Your task to perform on an android device: Go to eBay Image 0: 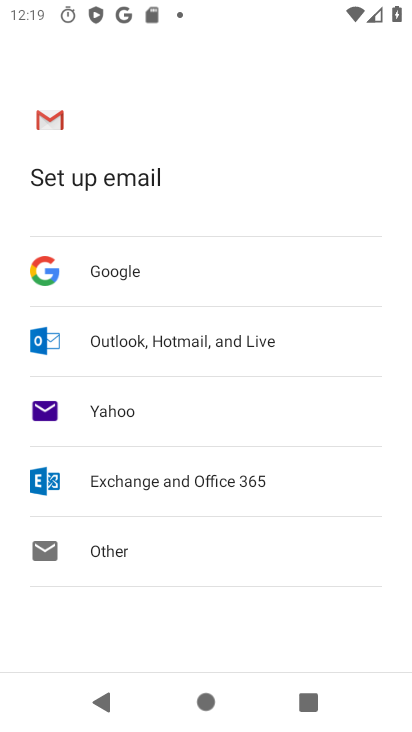
Step 0: drag from (302, 720) to (291, 129)
Your task to perform on an android device: Go to eBay Image 1: 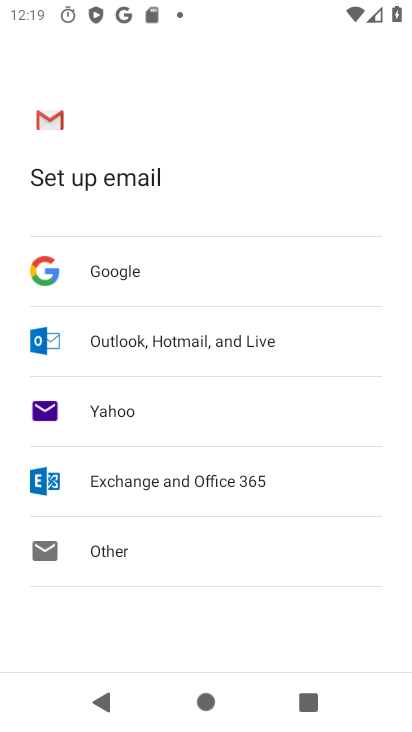
Step 1: press back button
Your task to perform on an android device: Go to eBay Image 2: 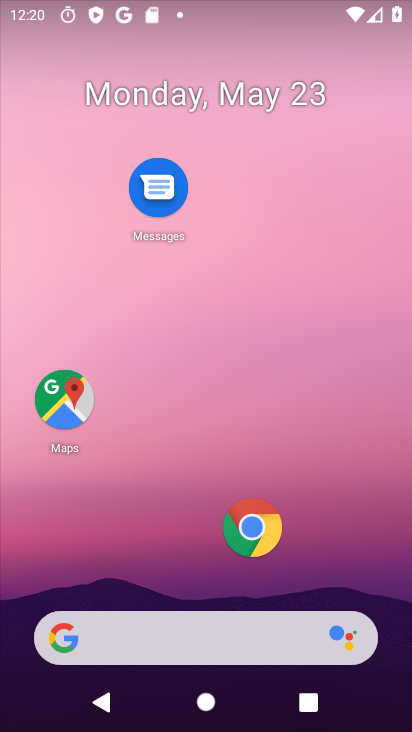
Step 2: drag from (243, 645) to (247, 259)
Your task to perform on an android device: Go to eBay Image 3: 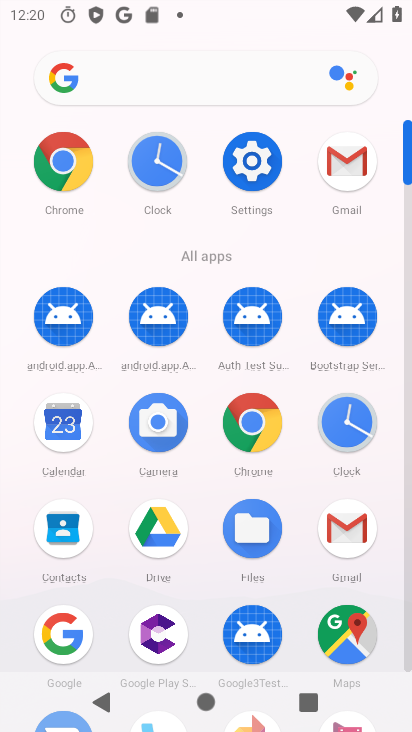
Step 3: click (247, 423)
Your task to perform on an android device: Go to eBay Image 4: 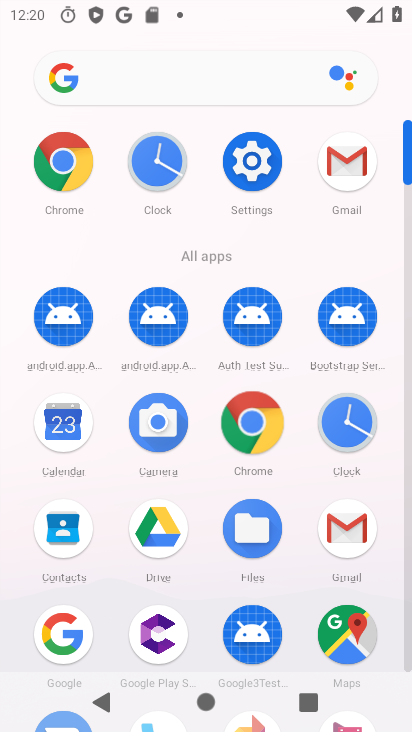
Step 4: click (248, 425)
Your task to perform on an android device: Go to eBay Image 5: 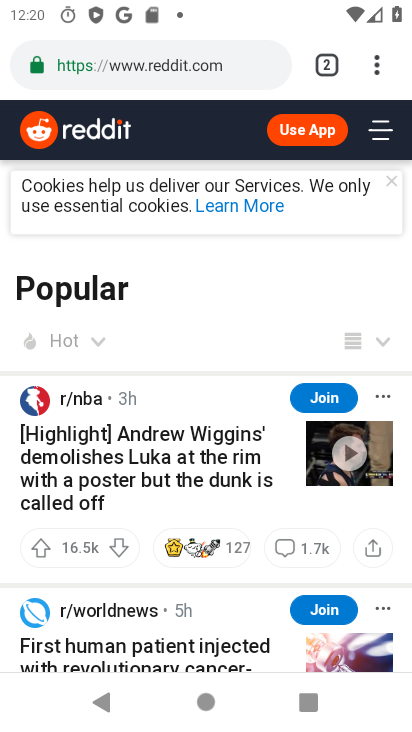
Step 5: click (377, 66)
Your task to perform on an android device: Go to eBay Image 6: 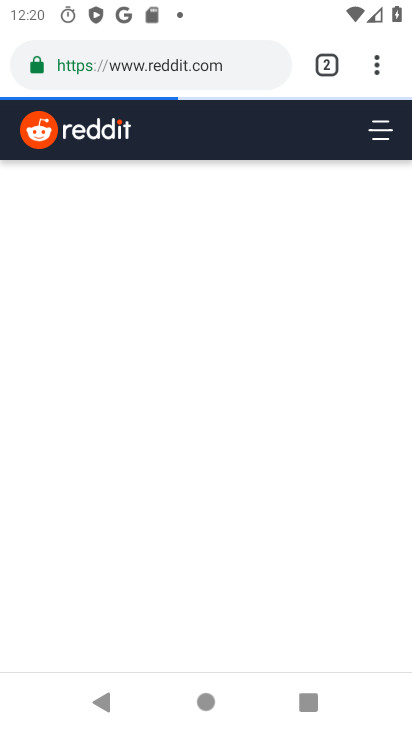
Step 6: click (377, 66)
Your task to perform on an android device: Go to eBay Image 7: 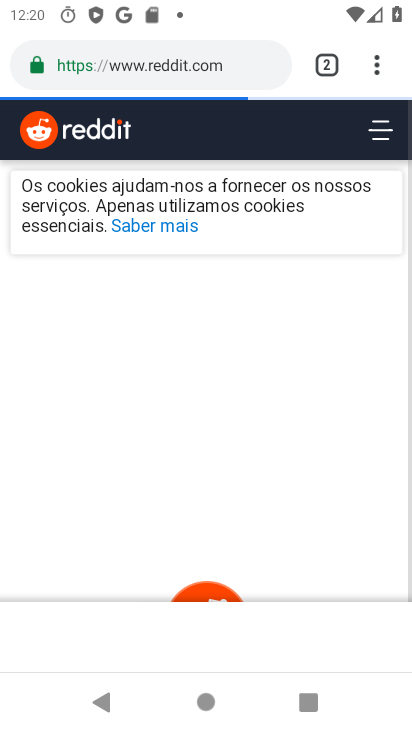
Step 7: drag from (377, 66) to (121, 125)
Your task to perform on an android device: Go to eBay Image 8: 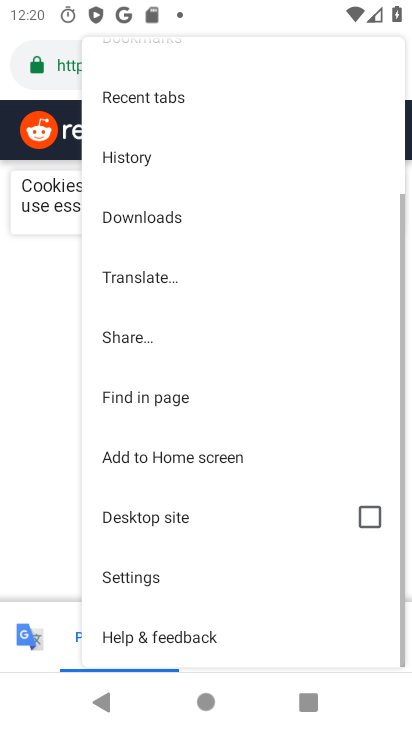
Step 8: drag from (128, 140) to (215, 345)
Your task to perform on an android device: Go to eBay Image 9: 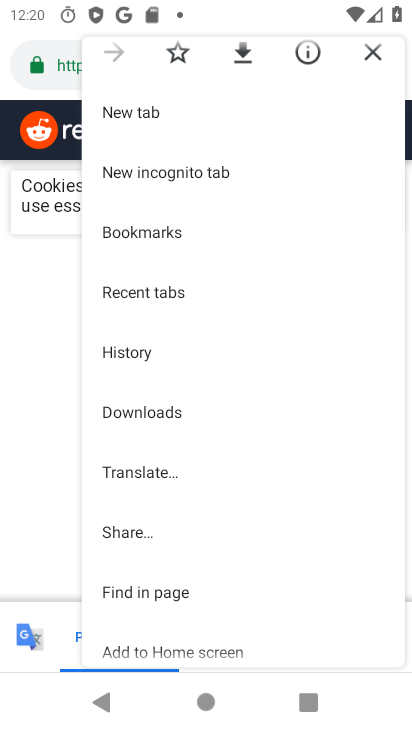
Step 9: click (127, 103)
Your task to perform on an android device: Go to eBay Image 10: 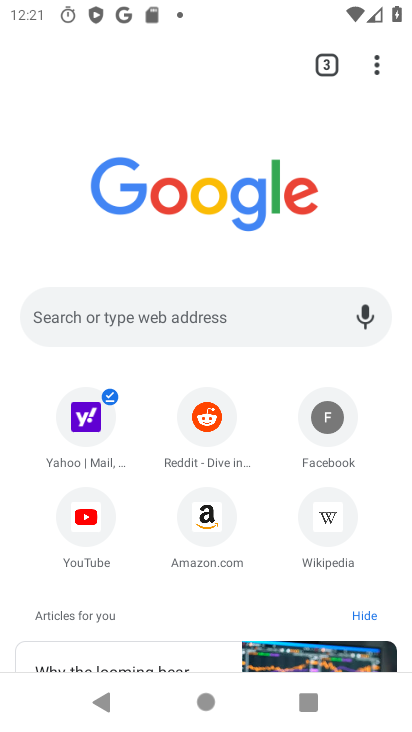
Step 10: click (103, 309)
Your task to perform on an android device: Go to eBay Image 11: 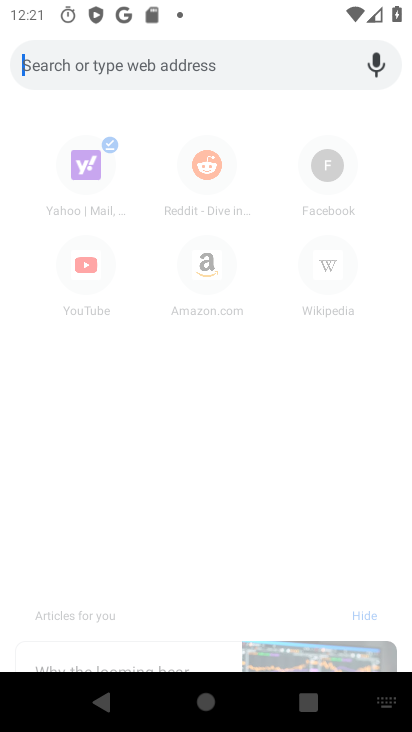
Step 11: type "ebay.com"
Your task to perform on an android device: Go to eBay Image 12: 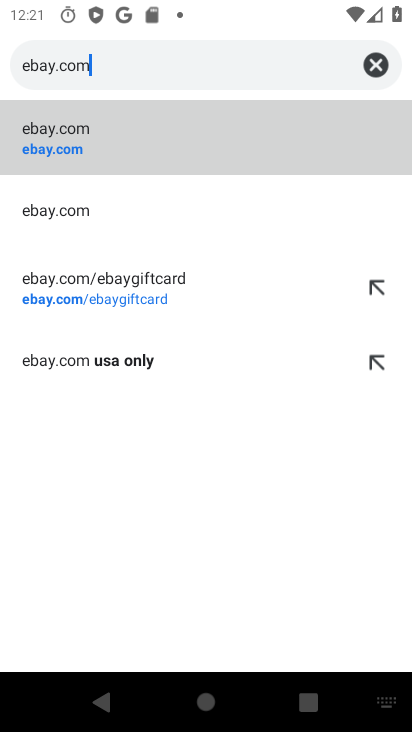
Step 12: click (39, 150)
Your task to perform on an android device: Go to eBay Image 13: 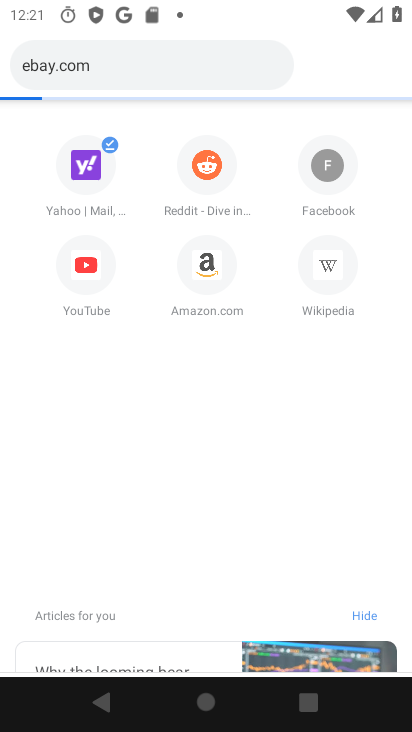
Step 13: click (39, 150)
Your task to perform on an android device: Go to eBay Image 14: 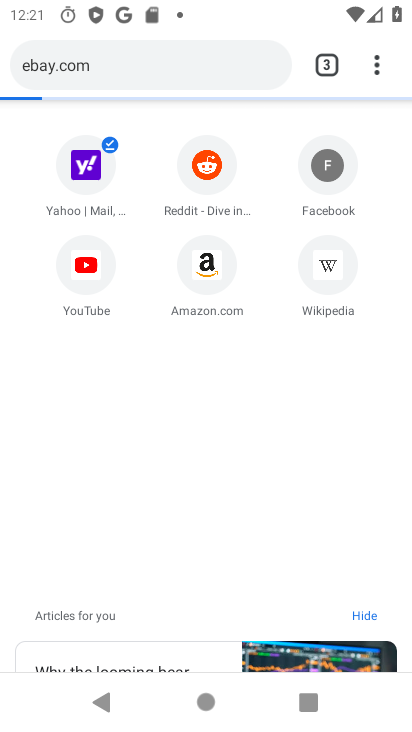
Step 14: click (39, 150)
Your task to perform on an android device: Go to eBay Image 15: 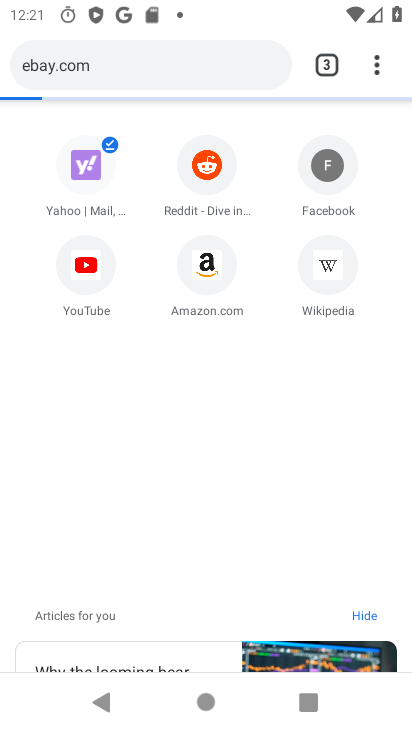
Step 15: click (39, 150)
Your task to perform on an android device: Go to eBay Image 16: 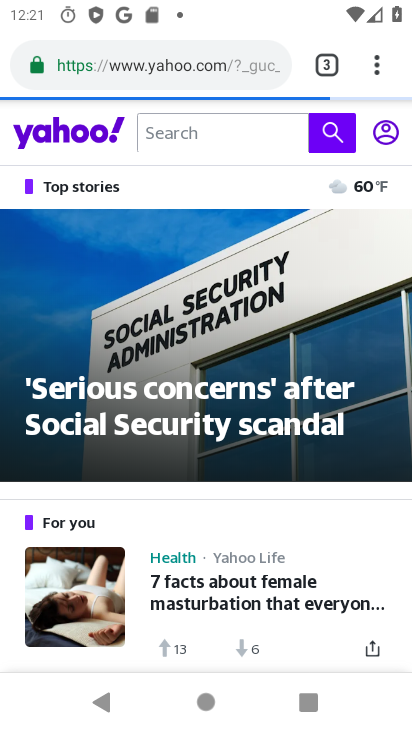
Step 16: task complete